Your task to perform on an android device: Turn on the flashlight Image 0: 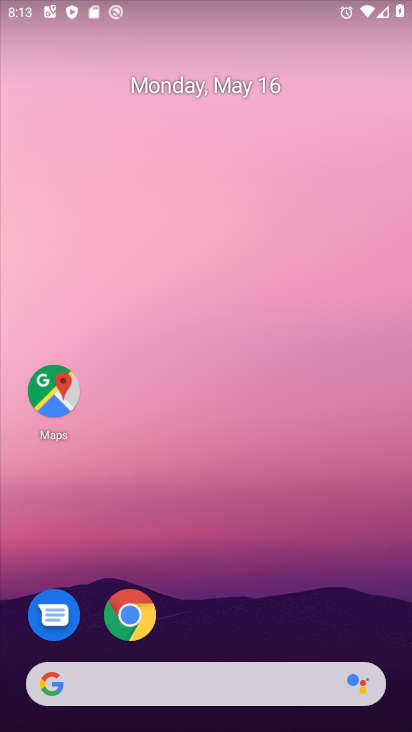
Step 0: drag from (299, 645) to (253, 107)
Your task to perform on an android device: Turn on the flashlight Image 1: 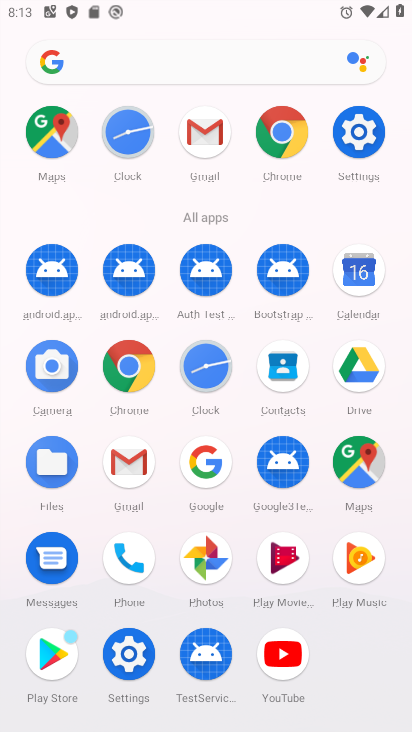
Step 1: click (382, 140)
Your task to perform on an android device: Turn on the flashlight Image 2: 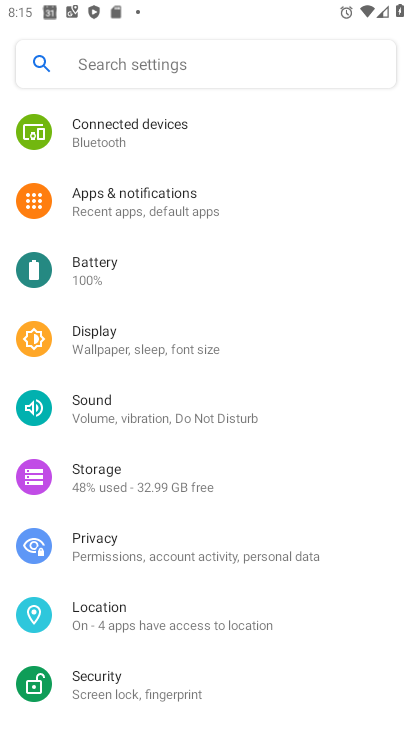
Step 2: task complete